Your task to perform on an android device: Open Yahoo.com Image 0: 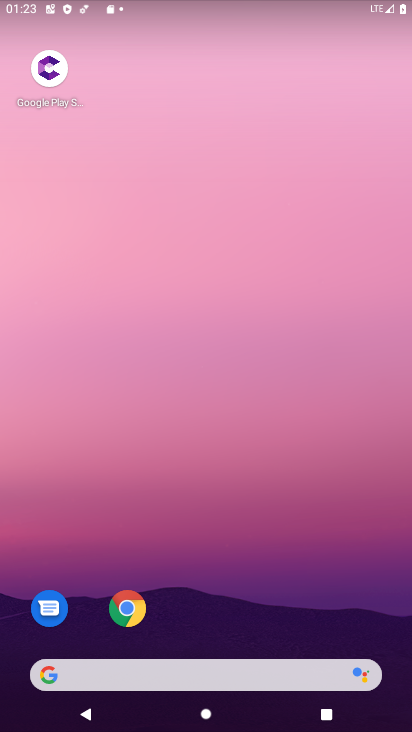
Step 0: drag from (213, 562) to (208, 204)
Your task to perform on an android device: Open Yahoo.com Image 1: 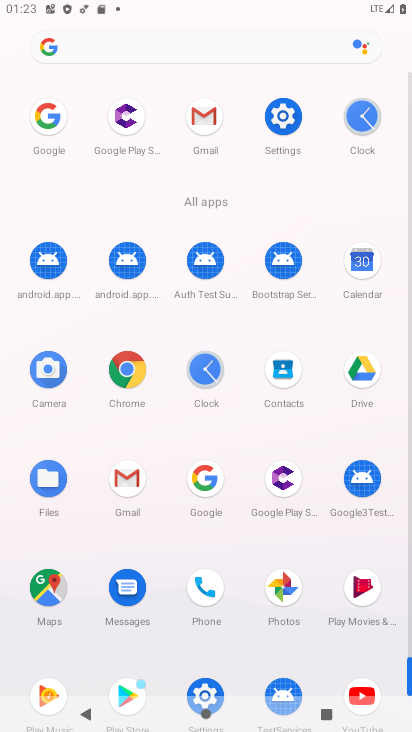
Step 1: click (113, 359)
Your task to perform on an android device: Open Yahoo.com Image 2: 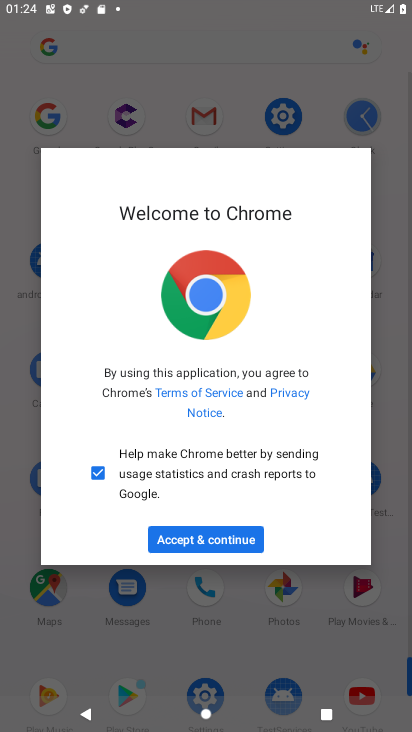
Step 2: click (228, 541)
Your task to perform on an android device: Open Yahoo.com Image 3: 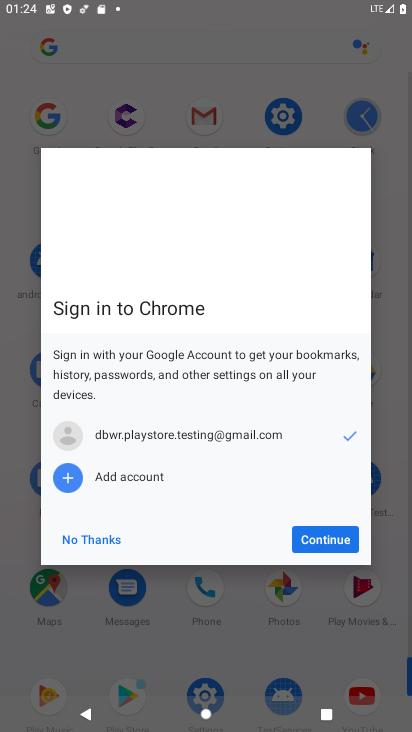
Step 3: click (326, 532)
Your task to perform on an android device: Open Yahoo.com Image 4: 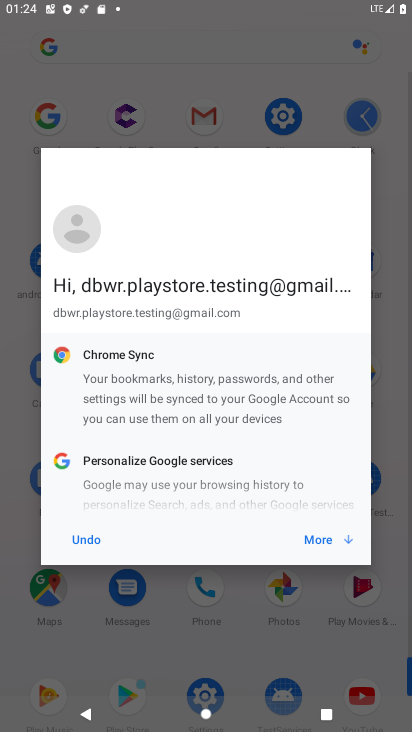
Step 4: click (324, 529)
Your task to perform on an android device: Open Yahoo.com Image 5: 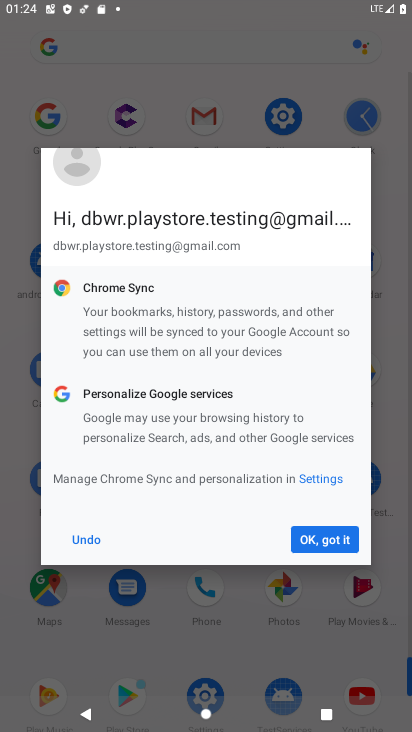
Step 5: click (320, 546)
Your task to perform on an android device: Open Yahoo.com Image 6: 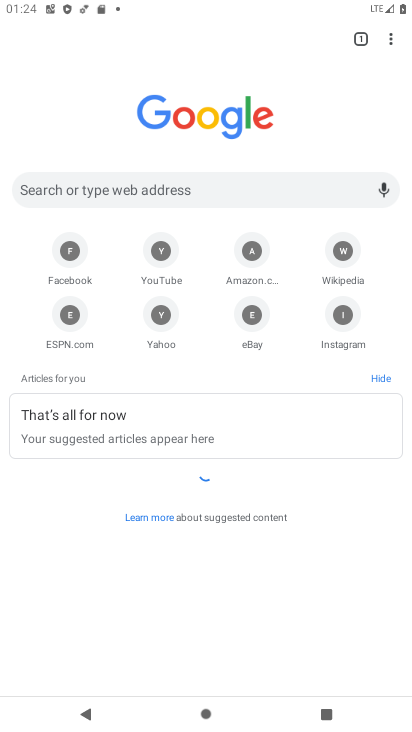
Step 6: click (383, 38)
Your task to perform on an android device: Open Yahoo.com Image 7: 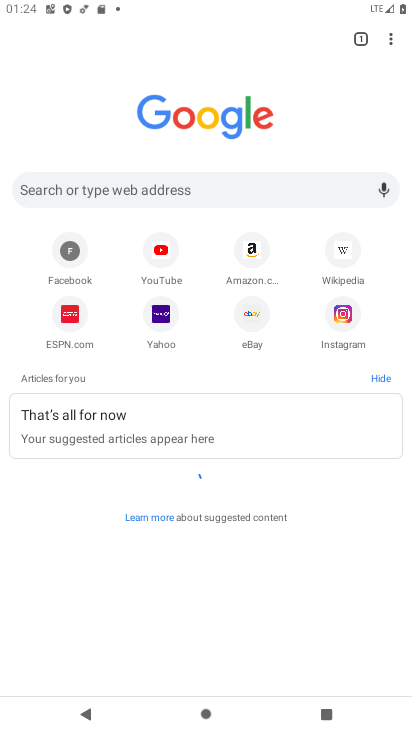
Step 7: click (400, 30)
Your task to perform on an android device: Open Yahoo.com Image 8: 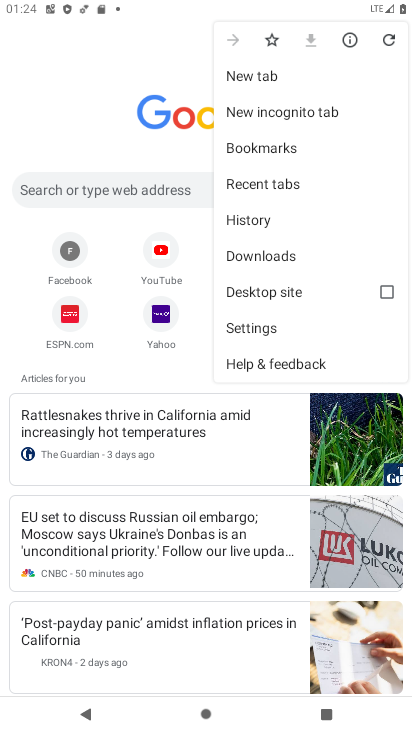
Step 8: click (93, 107)
Your task to perform on an android device: Open Yahoo.com Image 9: 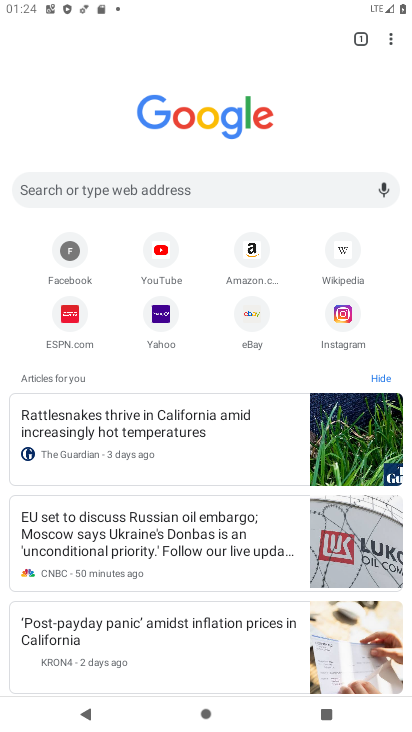
Step 9: click (154, 312)
Your task to perform on an android device: Open Yahoo.com Image 10: 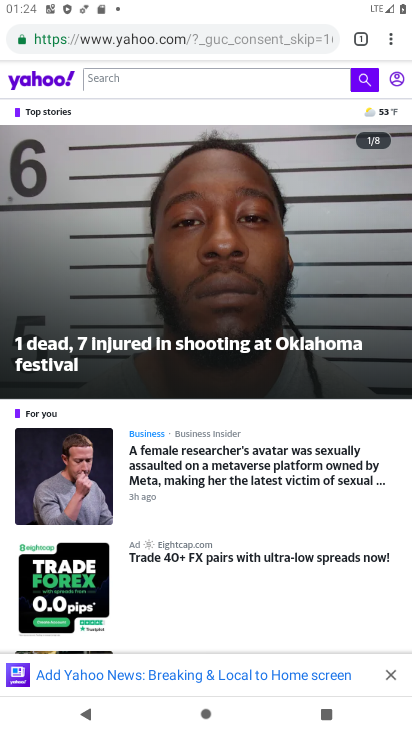
Step 10: task complete